Your task to perform on an android device: Open my contact list Image 0: 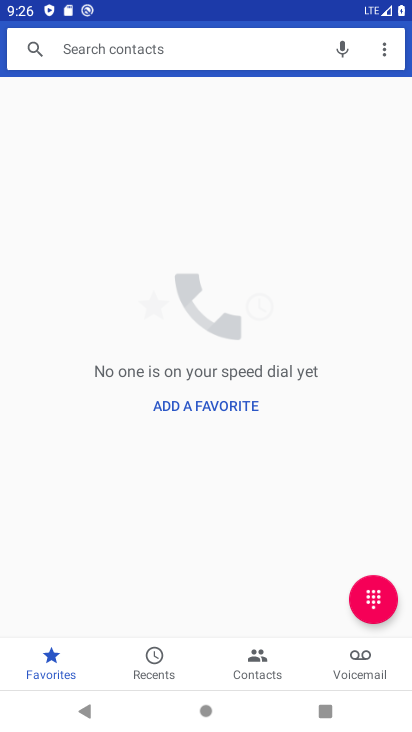
Step 0: press home button
Your task to perform on an android device: Open my contact list Image 1: 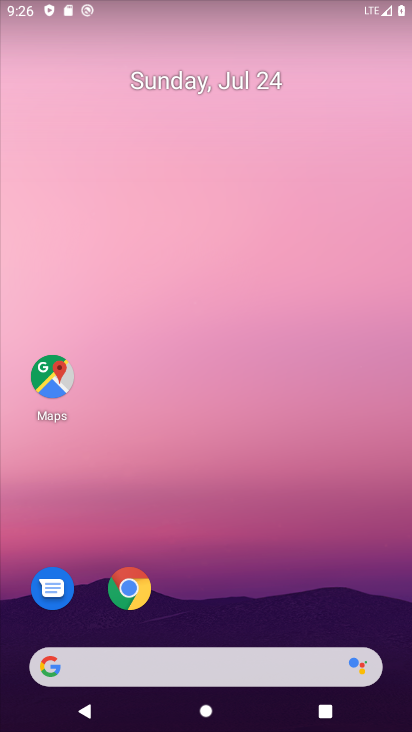
Step 1: drag from (152, 607) to (375, 29)
Your task to perform on an android device: Open my contact list Image 2: 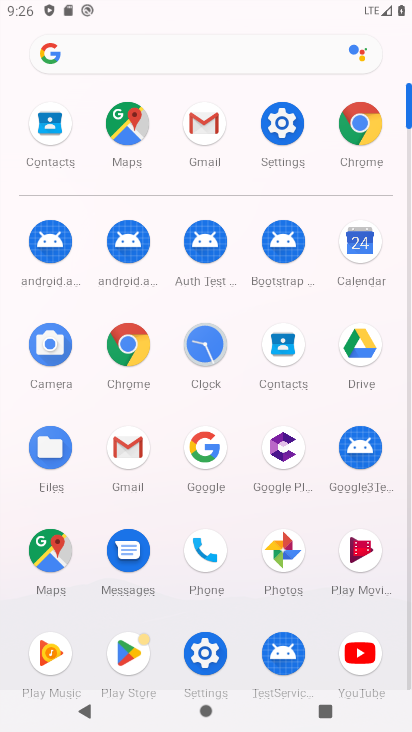
Step 2: click (278, 350)
Your task to perform on an android device: Open my contact list Image 3: 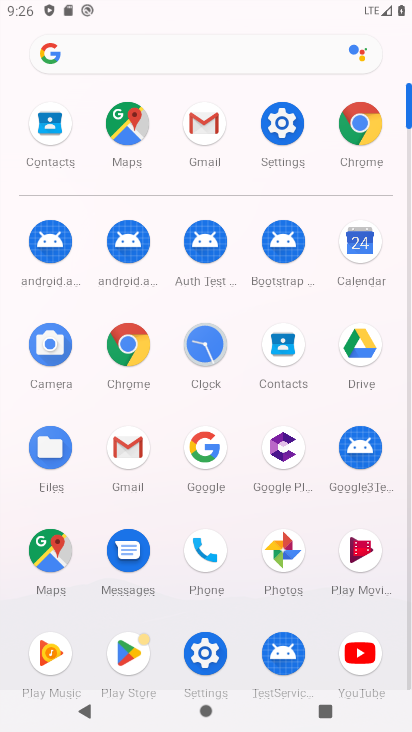
Step 3: click (278, 350)
Your task to perform on an android device: Open my contact list Image 4: 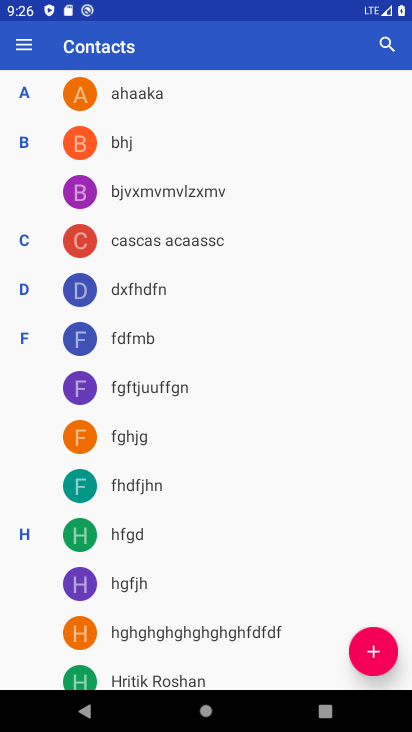
Step 4: task complete